Your task to perform on an android device: add a contact Image 0: 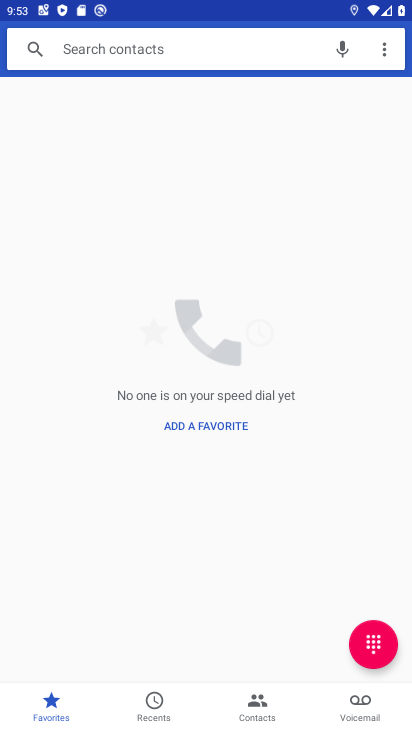
Step 0: click (124, 633)
Your task to perform on an android device: add a contact Image 1: 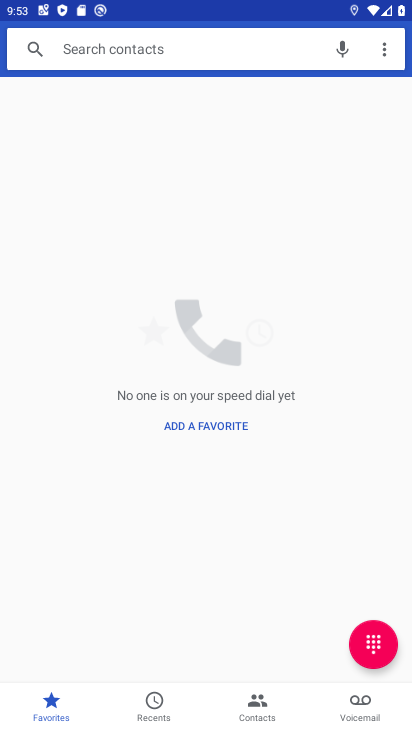
Step 1: press home button
Your task to perform on an android device: add a contact Image 2: 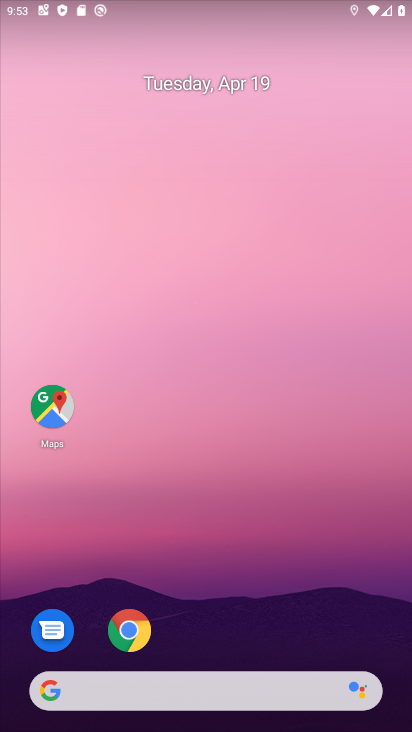
Step 2: drag from (224, 563) to (203, 82)
Your task to perform on an android device: add a contact Image 3: 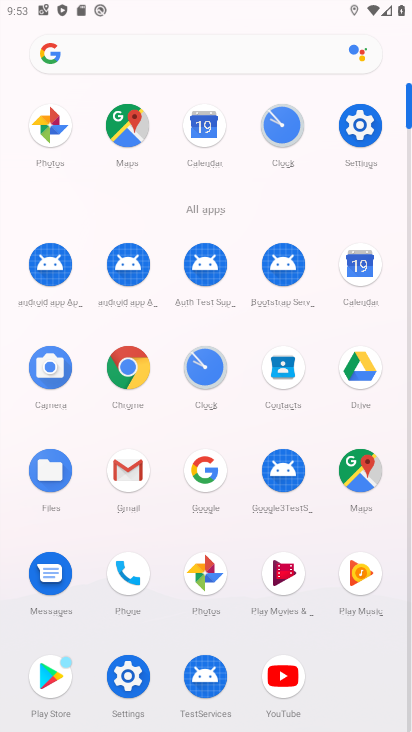
Step 3: click (287, 383)
Your task to perform on an android device: add a contact Image 4: 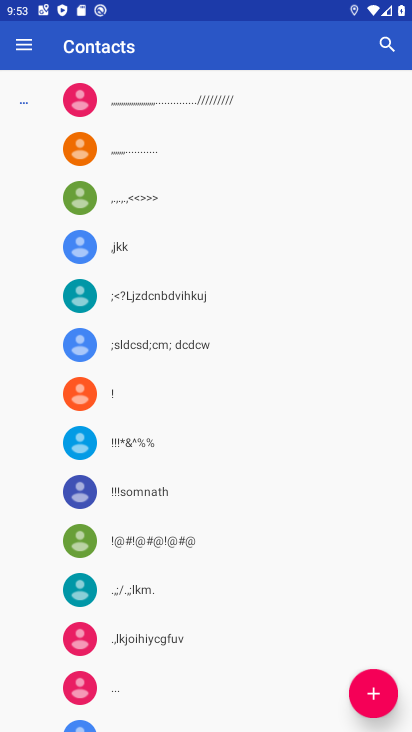
Step 4: click (374, 700)
Your task to perform on an android device: add a contact Image 5: 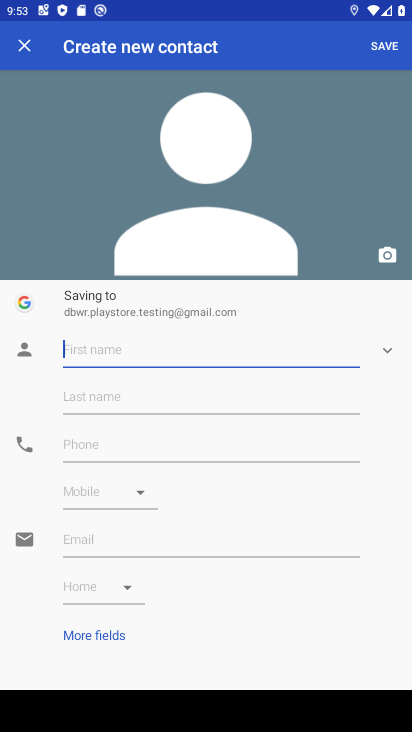
Step 5: click (171, 362)
Your task to perform on an android device: add a contact Image 6: 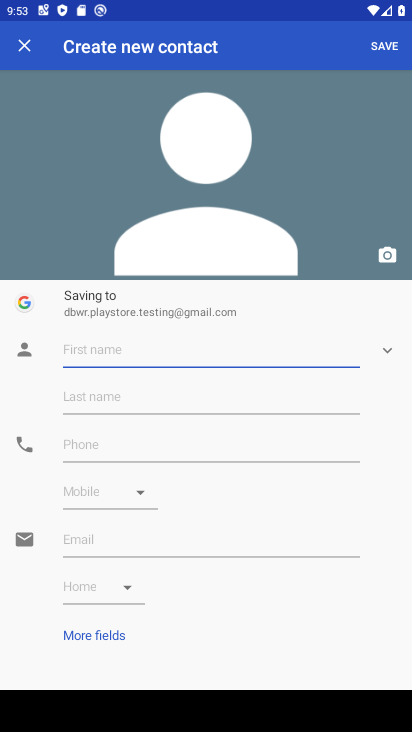
Step 6: type "payal"
Your task to perform on an android device: add a contact Image 7: 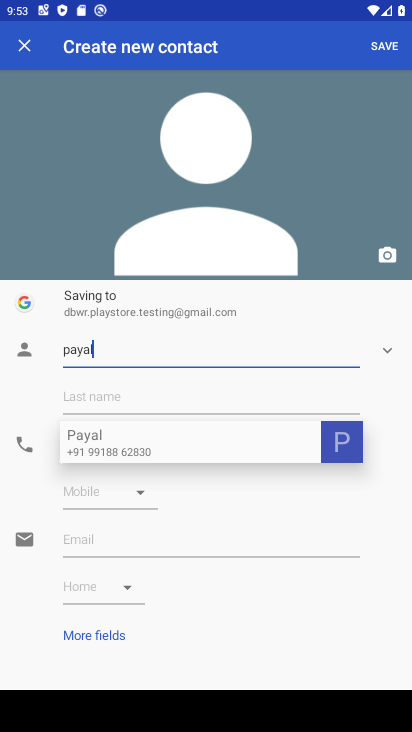
Step 7: click (106, 492)
Your task to perform on an android device: add a contact Image 8: 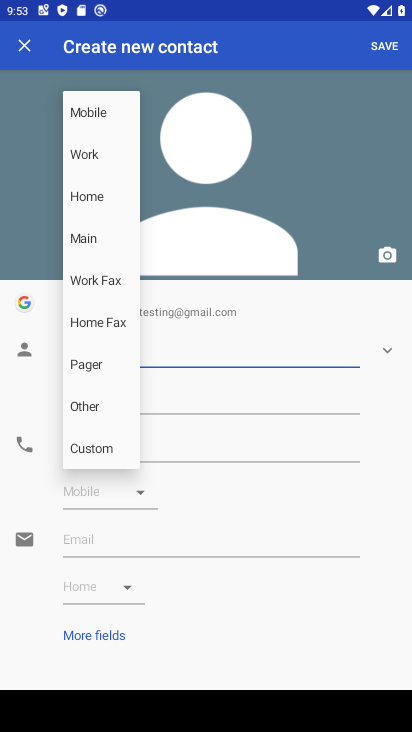
Step 8: click (185, 453)
Your task to perform on an android device: add a contact Image 9: 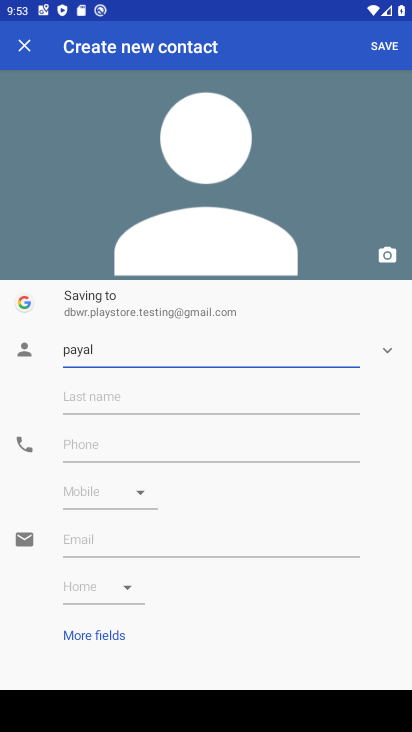
Step 9: click (180, 449)
Your task to perform on an android device: add a contact Image 10: 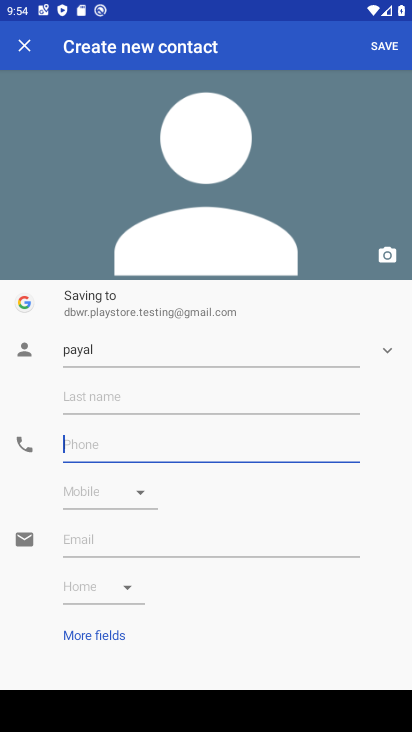
Step 10: type "987234765"
Your task to perform on an android device: add a contact Image 11: 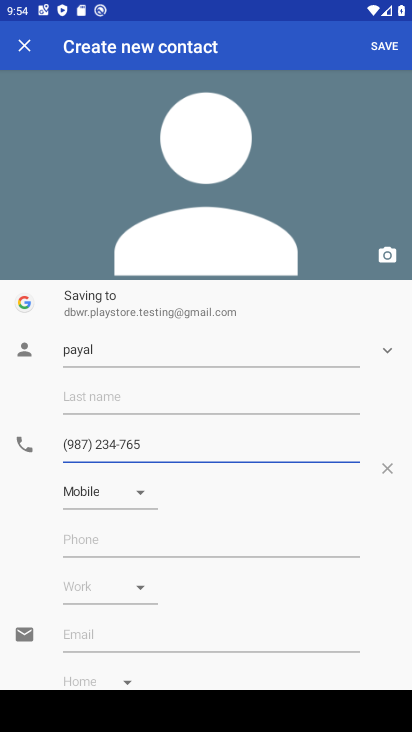
Step 11: click (388, 42)
Your task to perform on an android device: add a contact Image 12: 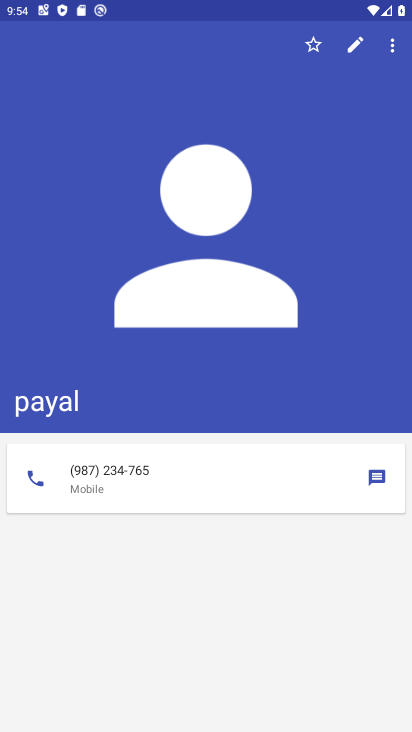
Step 12: task complete